Your task to perform on an android device: When is my next meeting? Image 0: 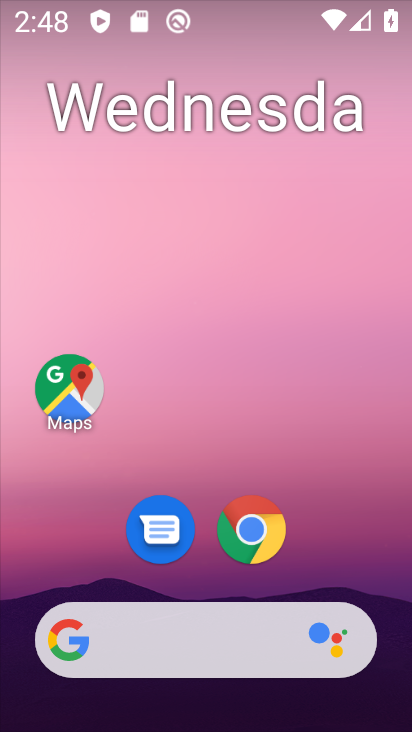
Step 0: drag from (320, 567) to (361, 61)
Your task to perform on an android device: When is my next meeting? Image 1: 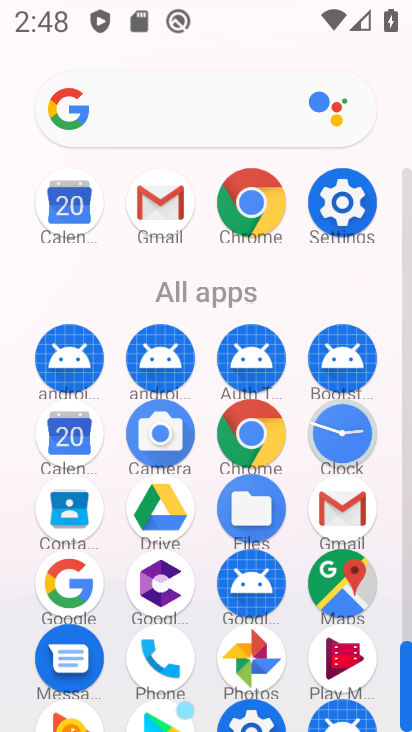
Step 1: click (69, 440)
Your task to perform on an android device: When is my next meeting? Image 2: 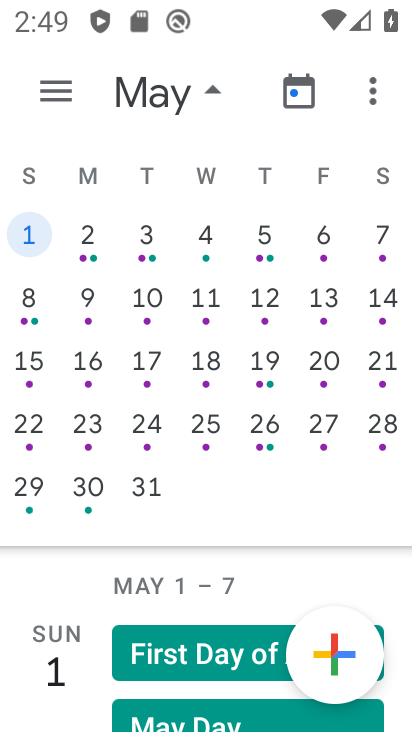
Step 2: drag from (85, 385) to (383, 438)
Your task to perform on an android device: When is my next meeting? Image 3: 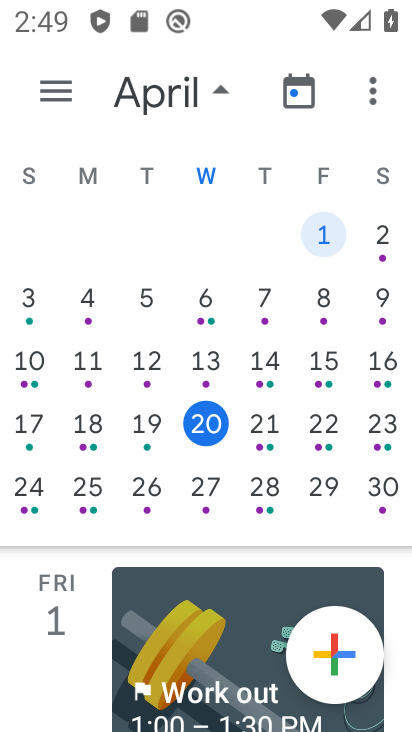
Step 3: click (262, 432)
Your task to perform on an android device: When is my next meeting? Image 4: 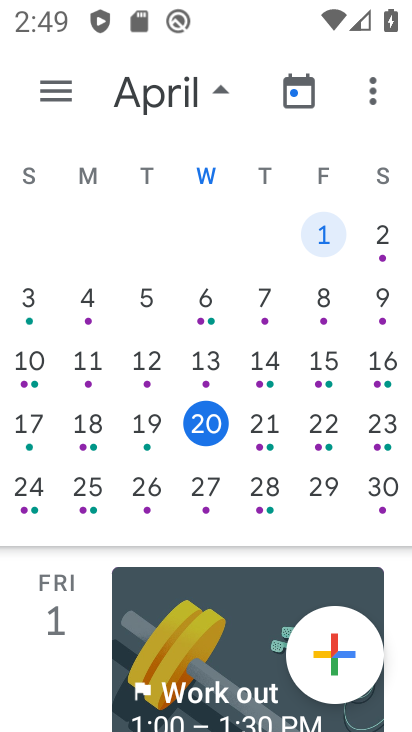
Step 4: click (266, 434)
Your task to perform on an android device: When is my next meeting? Image 5: 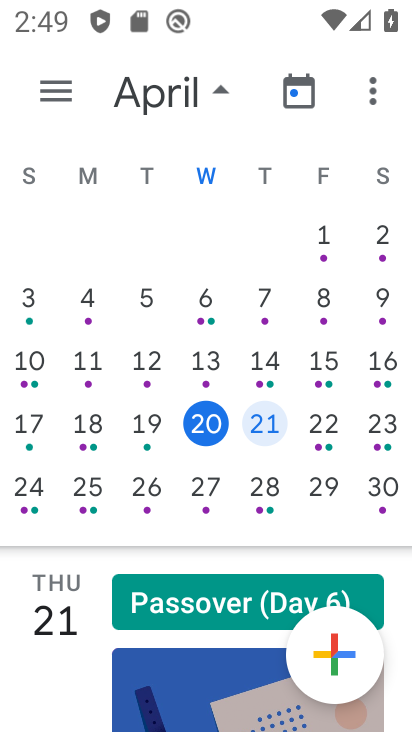
Step 5: task complete